Your task to perform on an android device: Play the last video I watched on Youtube Image 0: 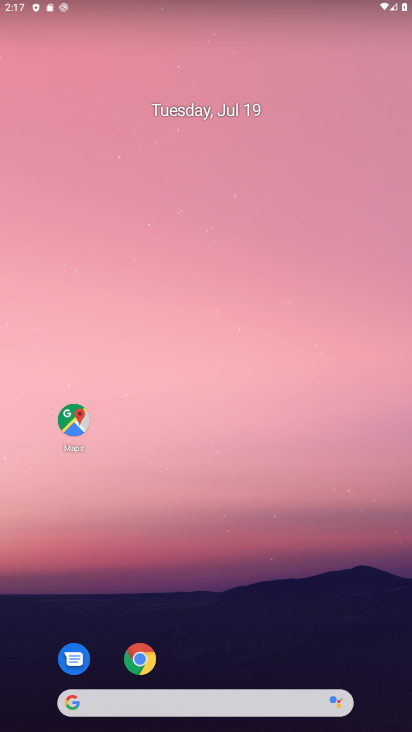
Step 0: drag from (239, 369) to (185, 125)
Your task to perform on an android device: Play the last video I watched on Youtube Image 1: 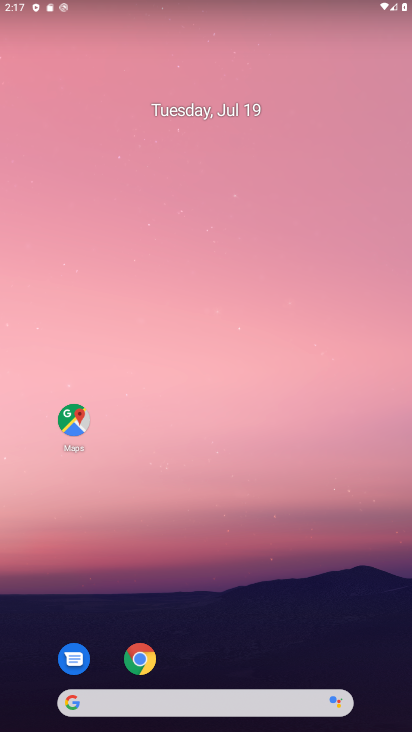
Step 1: drag from (243, 617) to (238, 154)
Your task to perform on an android device: Play the last video I watched on Youtube Image 2: 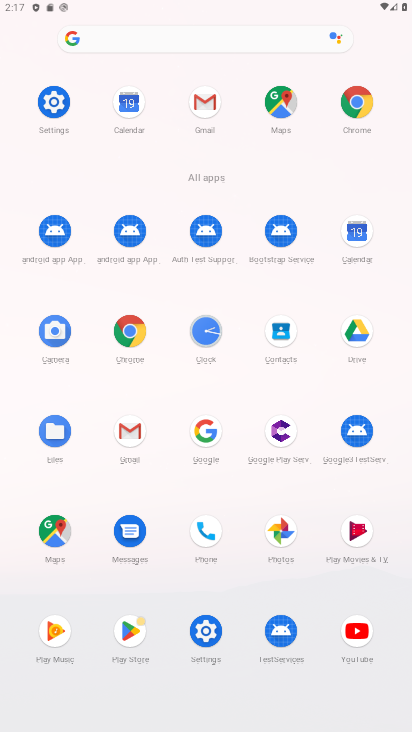
Step 2: click (358, 645)
Your task to perform on an android device: Play the last video I watched on Youtube Image 3: 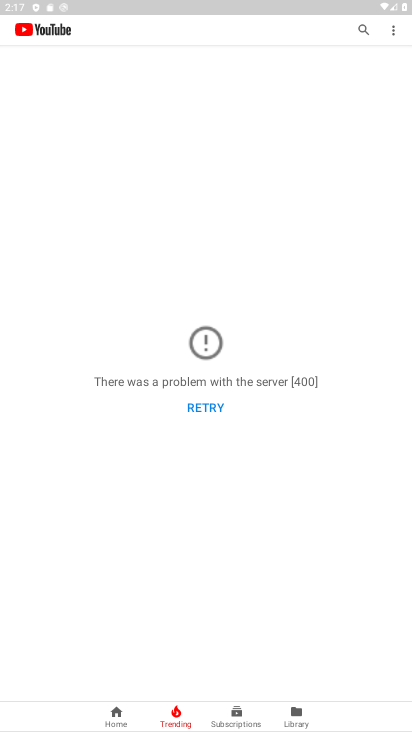
Step 3: click (287, 707)
Your task to perform on an android device: Play the last video I watched on Youtube Image 4: 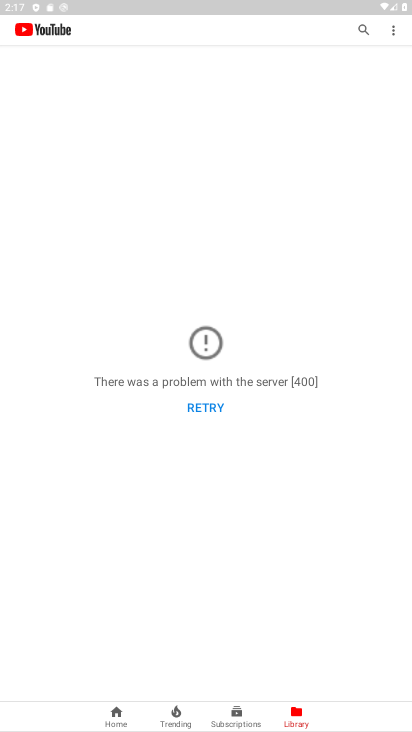
Step 4: task complete